Your task to perform on an android device: all mails in gmail Image 0: 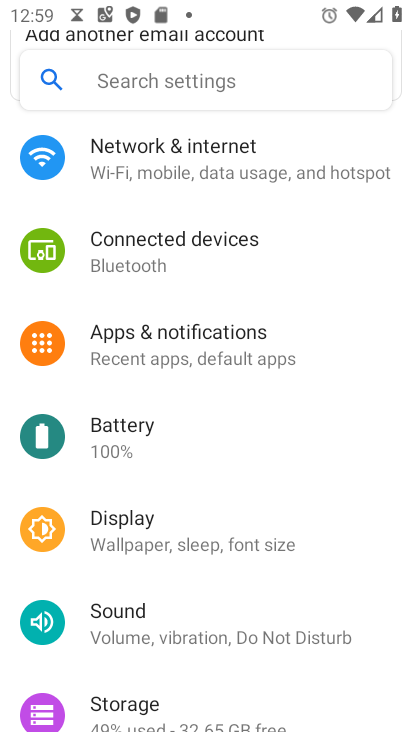
Step 0: press home button
Your task to perform on an android device: all mails in gmail Image 1: 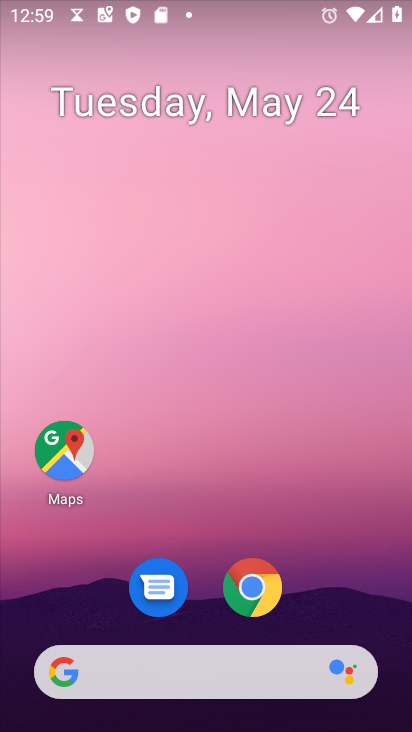
Step 1: drag from (146, 666) to (161, 103)
Your task to perform on an android device: all mails in gmail Image 2: 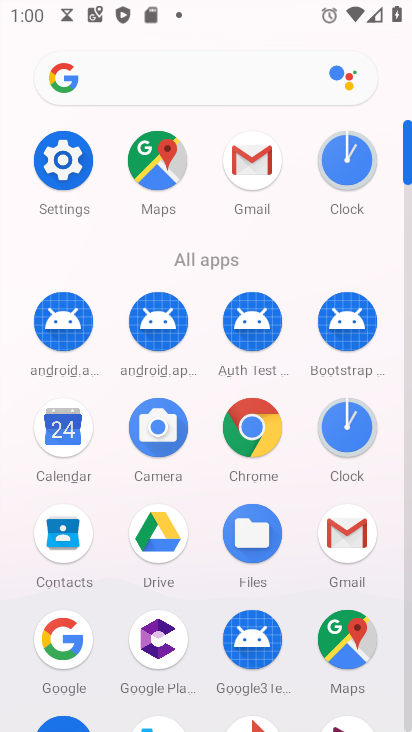
Step 2: click (238, 152)
Your task to perform on an android device: all mails in gmail Image 3: 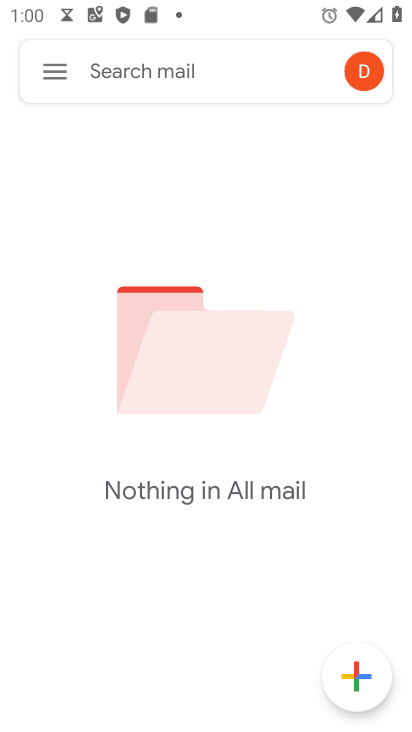
Step 3: task complete